Your task to perform on an android device: Turn on the flashlight Image 0: 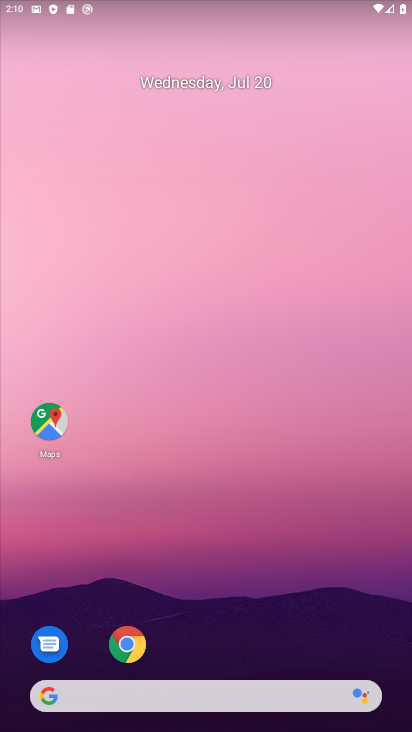
Step 0: press home button
Your task to perform on an android device: Turn on the flashlight Image 1: 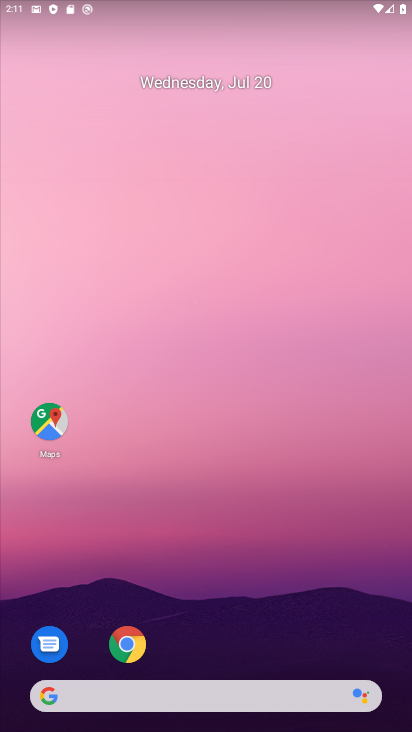
Step 1: task complete